Your task to perform on an android device: find snoozed emails in the gmail app Image 0: 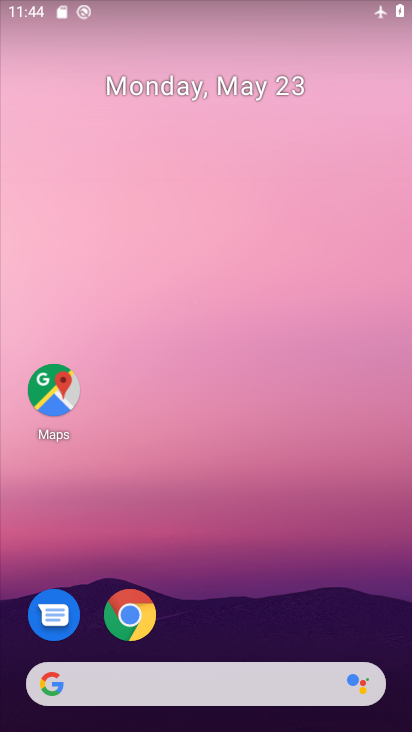
Step 0: drag from (297, 574) to (233, 240)
Your task to perform on an android device: find snoozed emails in the gmail app Image 1: 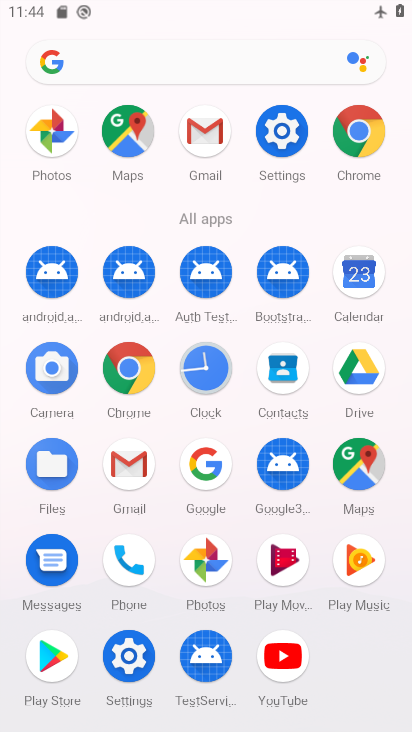
Step 1: click (201, 131)
Your task to perform on an android device: find snoozed emails in the gmail app Image 2: 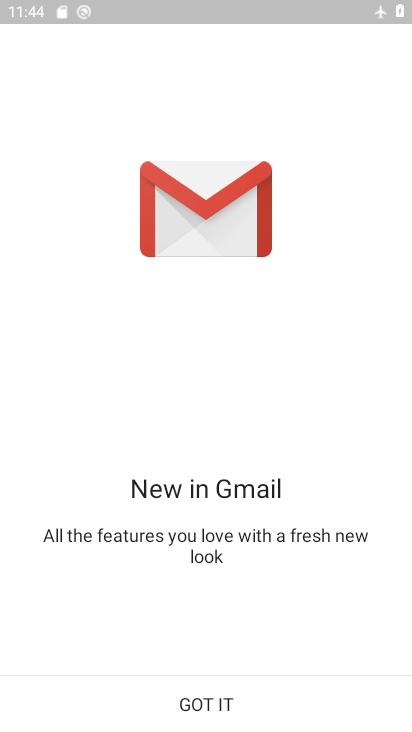
Step 2: click (208, 701)
Your task to perform on an android device: find snoozed emails in the gmail app Image 3: 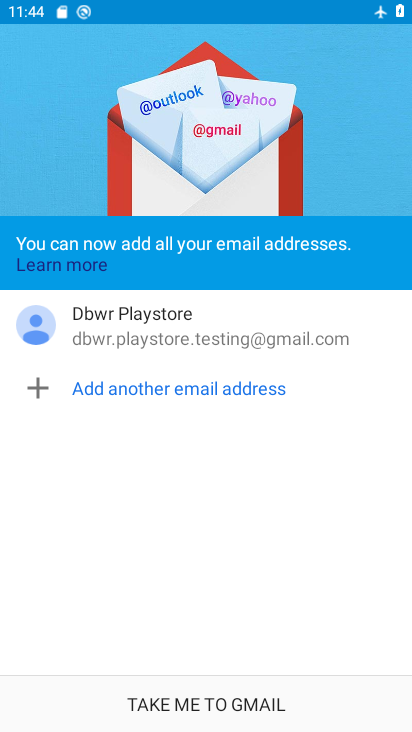
Step 3: click (198, 702)
Your task to perform on an android device: find snoozed emails in the gmail app Image 4: 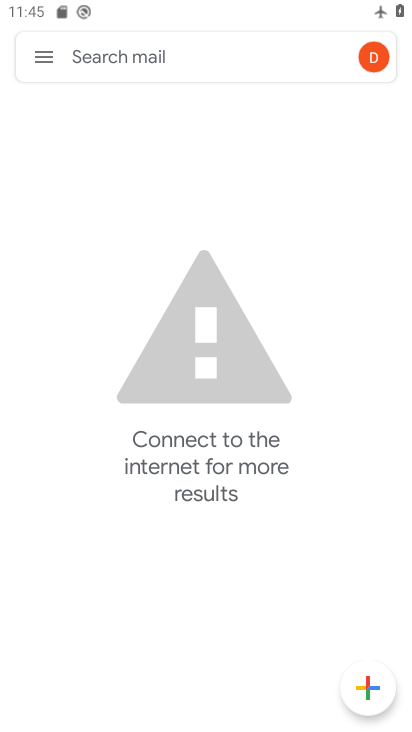
Step 4: click (46, 53)
Your task to perform on an android device: find snoozed emails in the gmail app Image 5: 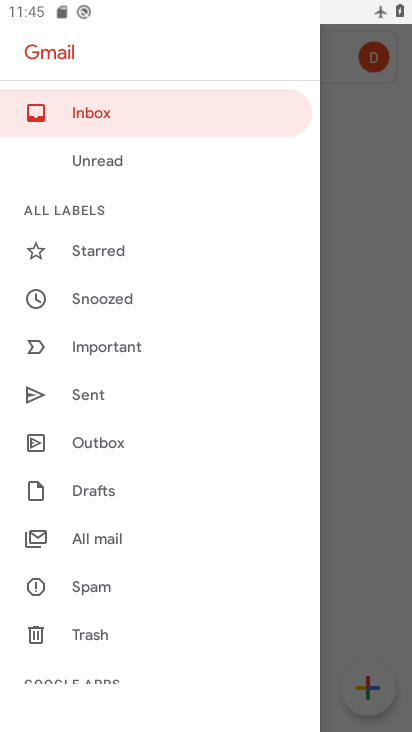
Step 5: click (35, 57)
Your task to perform on an android device: find snoozed emails in the gmail app Image 6: 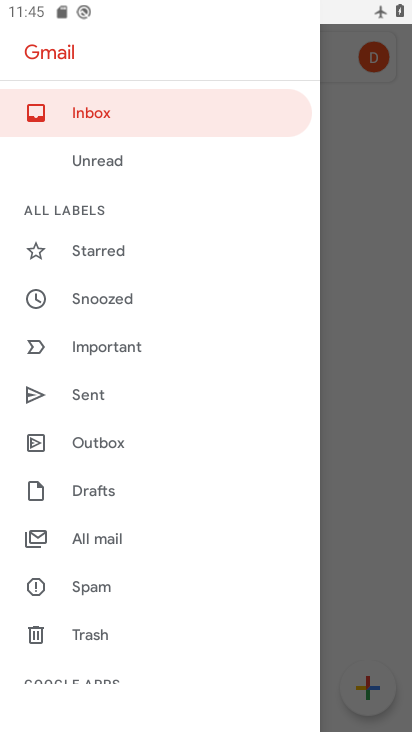
Step 6: click (42, 56)
Your task to perform on an android device: find snoozed emails in the gmail app Image 7: 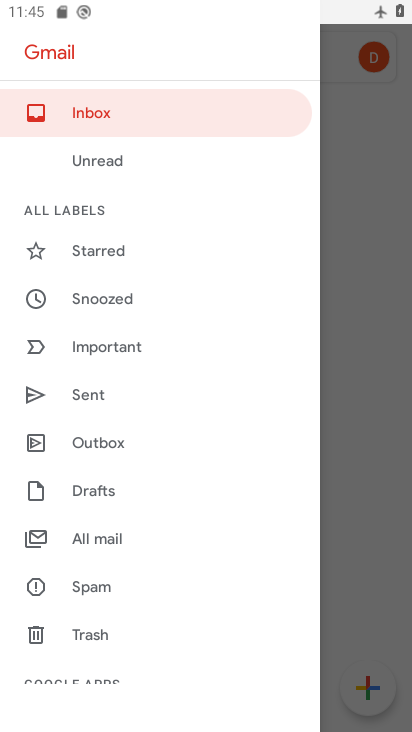
Step 7: click (115, 536)
Your task to perform on an android device: find snoozed emails in the gmail app Image 8: 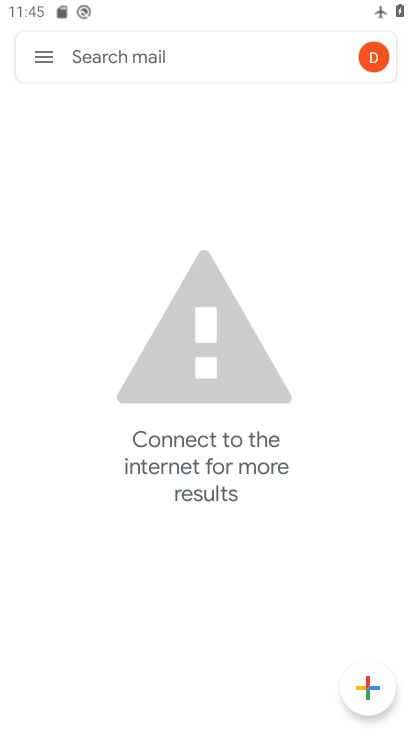
Step 8: task complete